Your task to perform on an android device: turn off airplane mode Image 0: 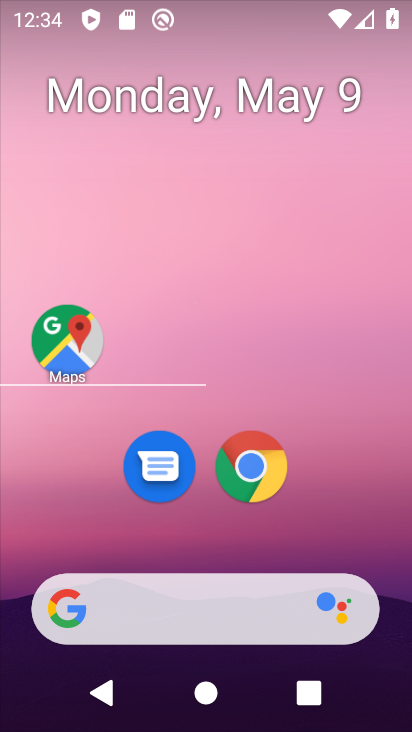
Step 0: drag from (309, 542) to (299, 13)
Your task to perform on an android device: turn off airplane mode Image 1: 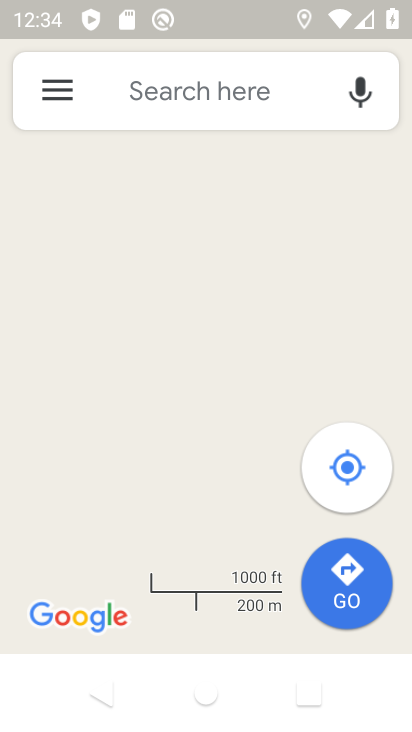
Step 1: click (203, 707)
Your task to perform on an android device: turn off airplane mode Image 2: 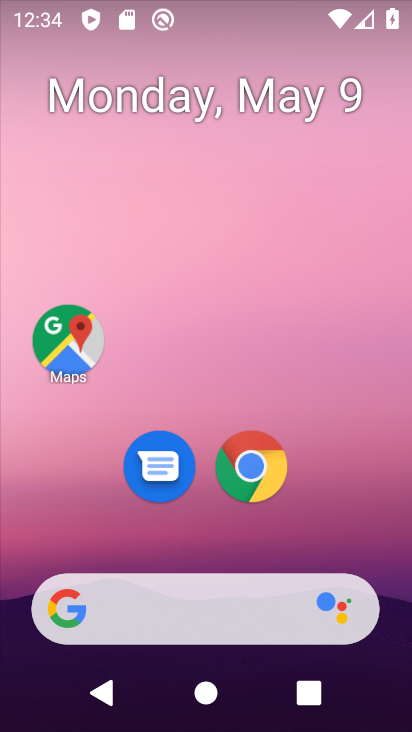
Step 2: drag from (192, 465) to (166, 15)
Your task to perform on an android device: turn off airplane mode Image 3: 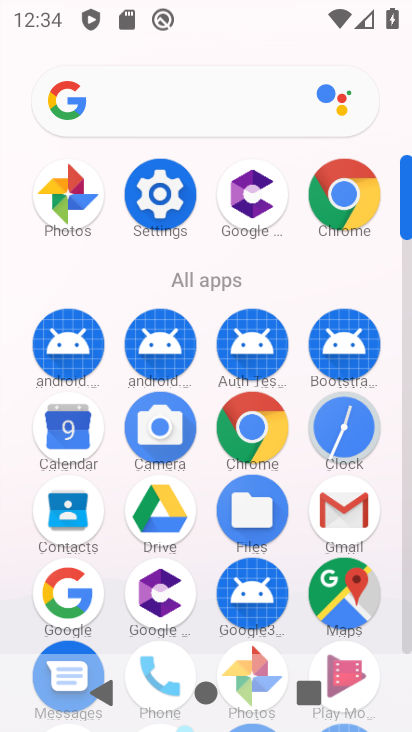
Step 3: click (173, 211)
Your task to perform on an android device: turn off airplane mode Image 4: 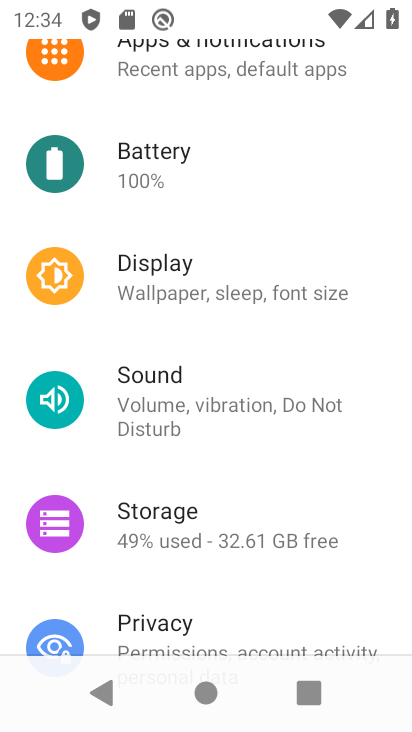
Step 4: drag from (173, 211) to (191, 558)
Your task to perform on an android device: turn off airplane mode Image 5: 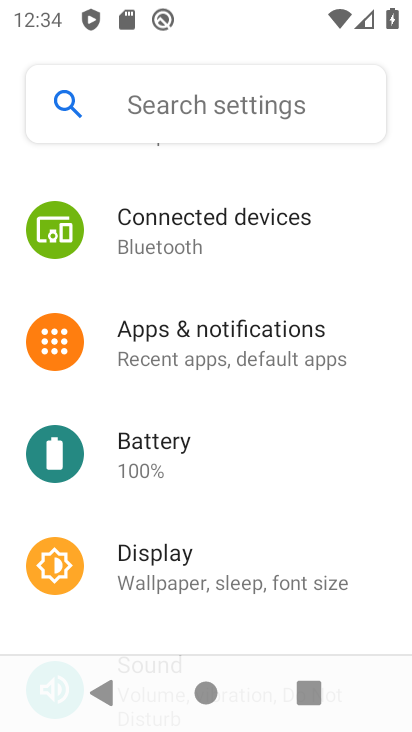
Step 5: drag from (213, 313) to (263, 635)
Your task to perform on an android device: turn off airplane mode Image 6: 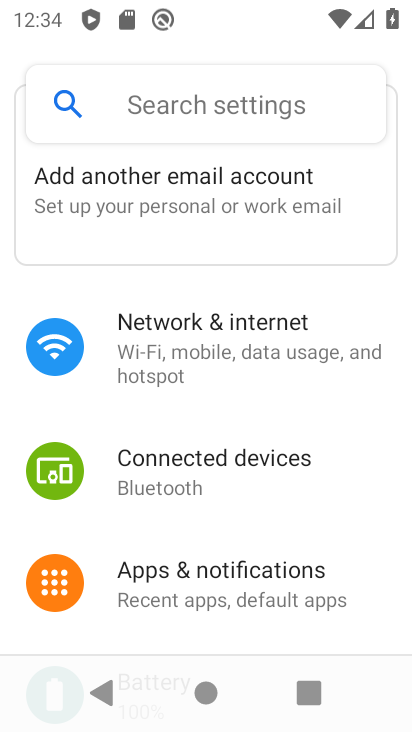
Step 6: drag from (262, 363) to (278, 554)
Your task to perform on an android device: turn off airplane mode Image 7: 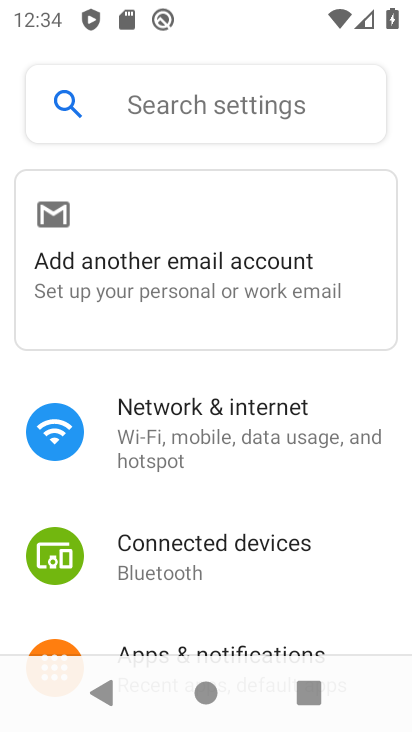
Step 7: click (255, 438)
Your task to perform on an android device: turn off airplane mode Image 8: 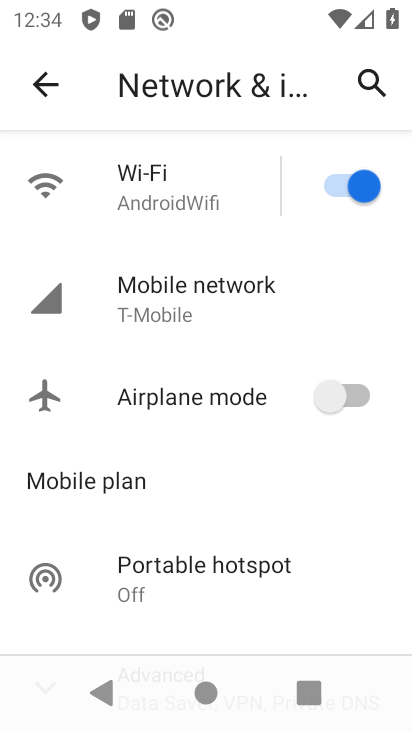
Step 8: task complete